Your task to perform on an android device: star an email in the gmail app Image 0: 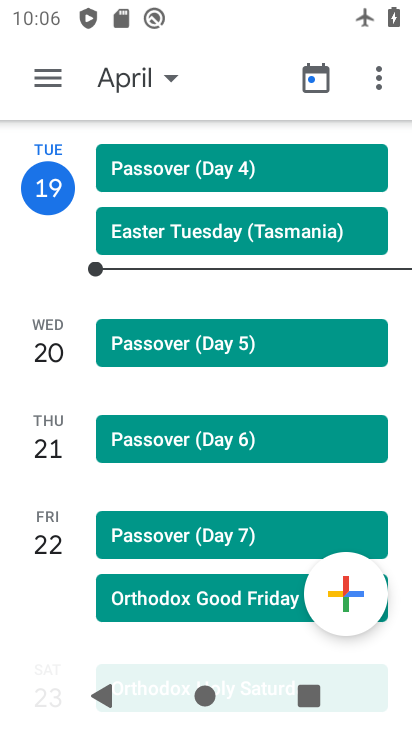
Step 0: press home button
Your task to perform on an android device: star an email in the gmail app Image 1: 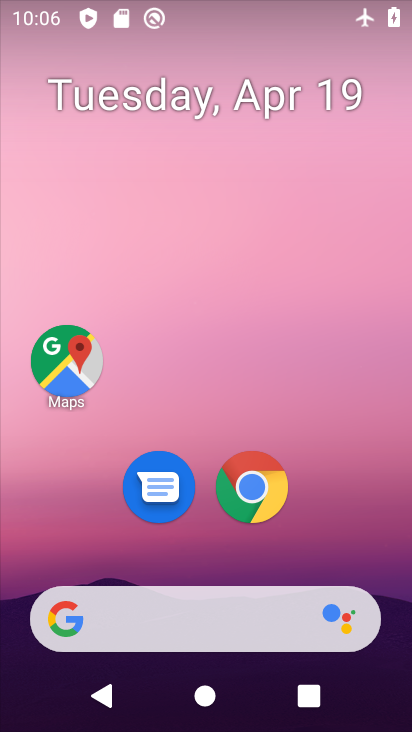
Step 1: drag from (321, 535) to (356, 40)
Your task to perform on an android device: star an email in the gmail app Image 2: 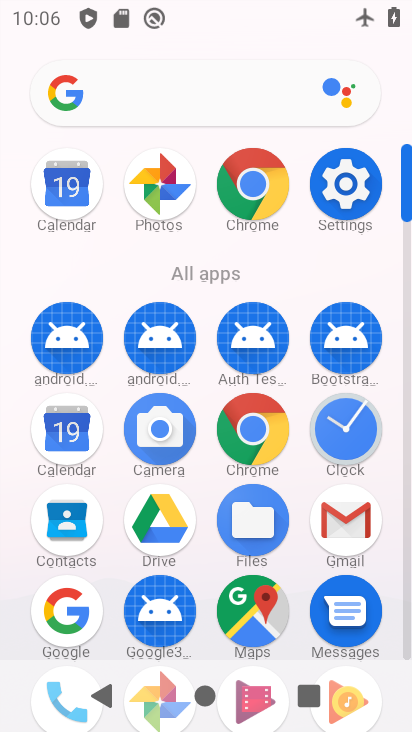
Step 2: click (369, 530)
Your task to perform on an android device: star an email in the gmail app Image 3: 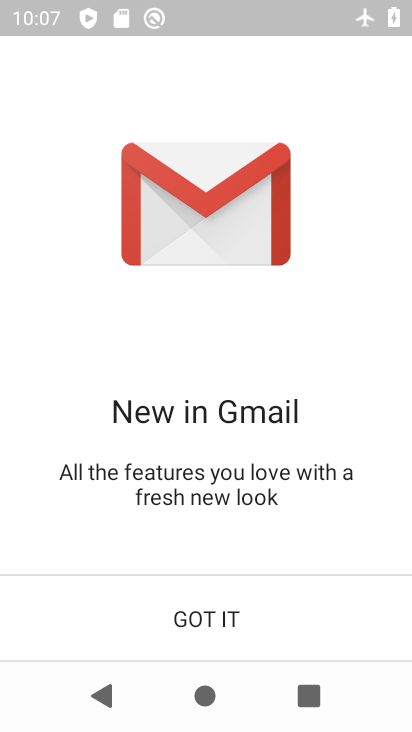
Step 3: click (326, 596)
Your task to perform on an android device: star an email in the gmail app Image 4: 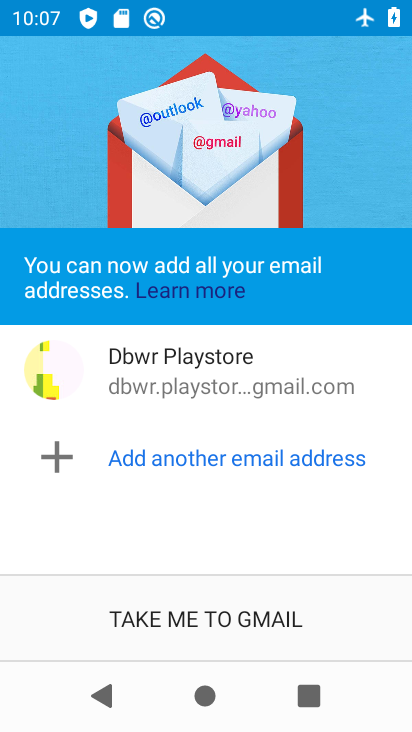
Step 4: click (325, 622)
Your task to perform on an android device: star an email in the gmail app Image 5: 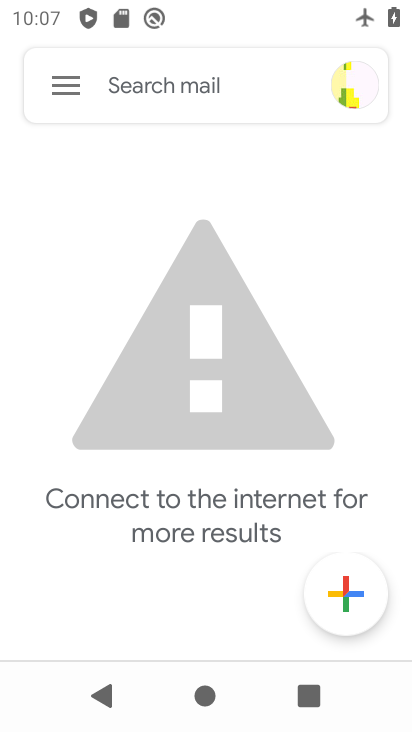
Step 5: task complete